Your task to perform on an android device: find which apps use the phone's location Image 0: 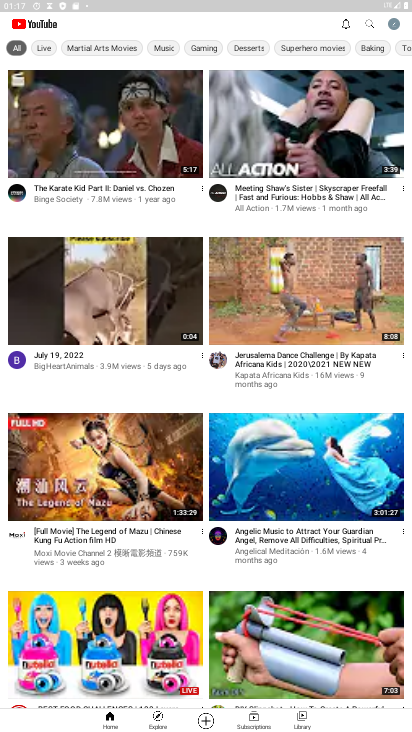
Step 0: press home button
Your task to perform on an android device: find which apps use the phone's location Image 1: 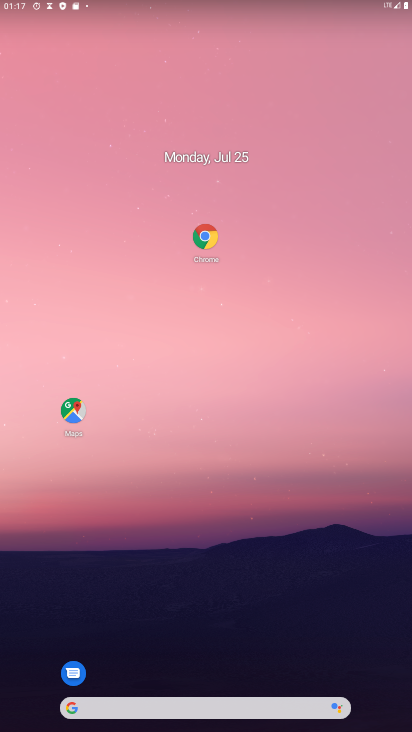
Step 1: drag from (272, 690) to (278, 37)
Your task to perform on an android device: find which apps use the phone's location Image 2: 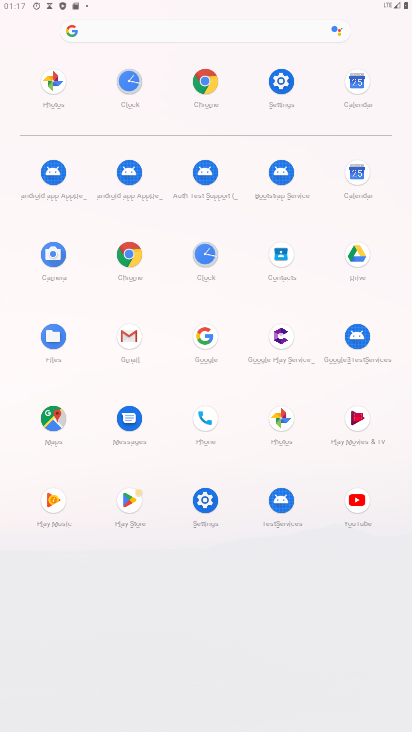
Step 2: click (279, 76)
Your task to perform on an android device: find which apps use the phone's location Image 3: 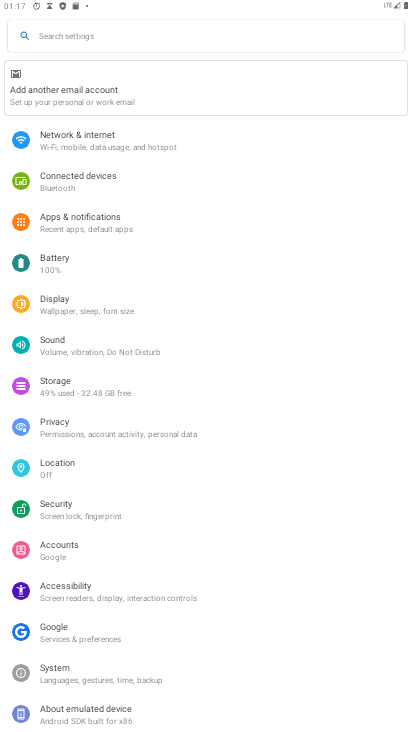
Step 3: click (66, 473)
Your task to perform on an android device: find which apps use the phone's location Image 4: 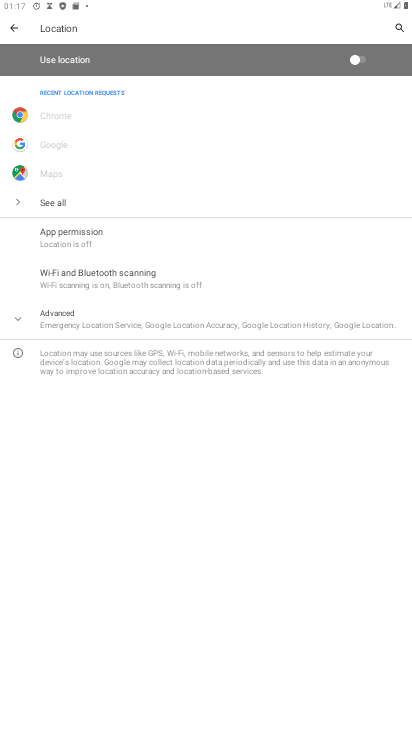
Step 4: click (117, 245)
Your task to perform on an android device: find which apps use the phone's location Image 5: 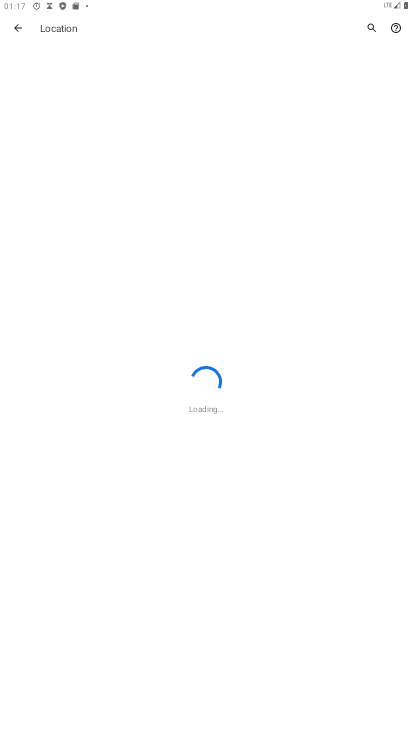
Step 5: task complete